Your task to perform on an android device: turn on priority inbox in the gmail app Image 0: 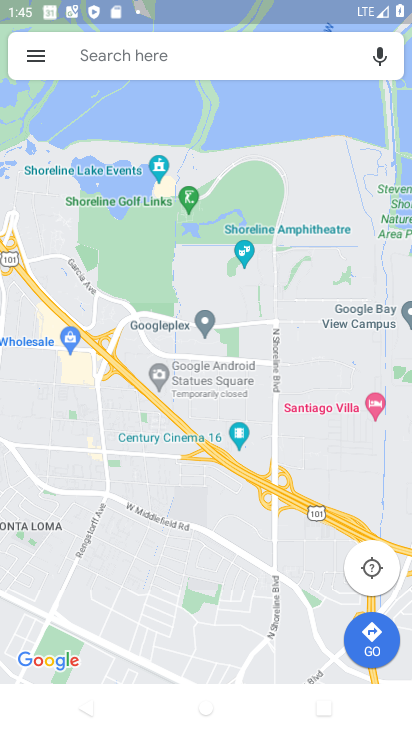
Step 0: press home button
Your task to perform on an android device: turn on priority inbox in the gmail app Image 1: 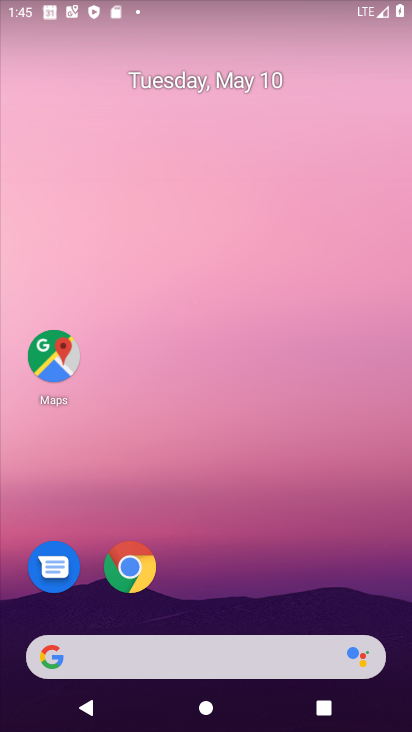
Step 1: drag from (374, 595) to (283, 112)
Your task to perform on an android device: turn on priority inbox in the gmail app Image 2: 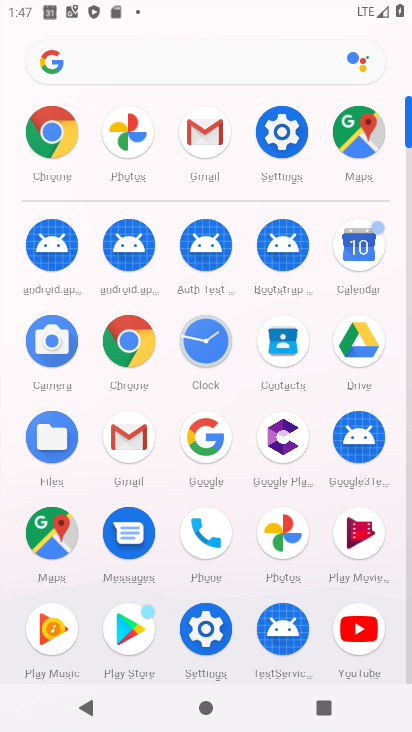
Step 2: click (216, 626)
Your task to perform on an android device: turn on priority inbox in the gmail app Image 3: 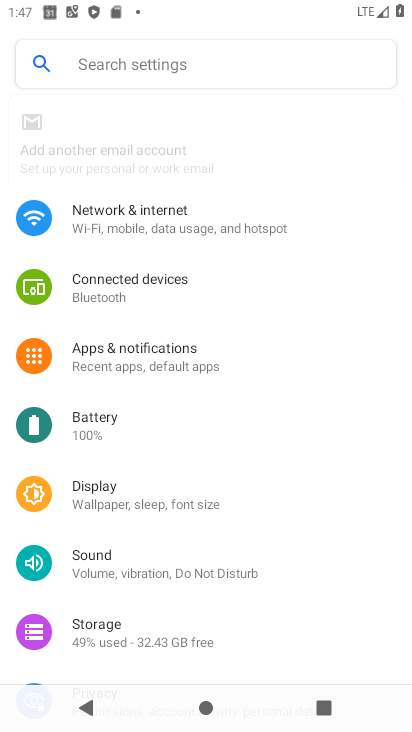
Step 3: press home button
Your task to perform on an android device: turn on priority inbox in the gmail app Image 4: 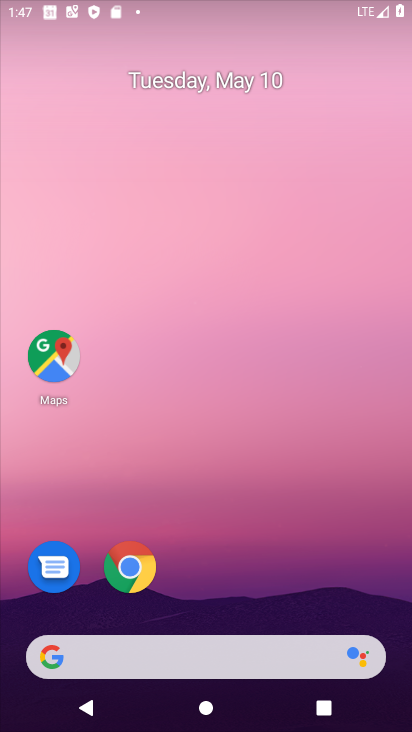
Step 4: drag from (273, 593) to (284, 29)
Your task to perform on an android device: turn on priority inbox in the gmail app Image 5: 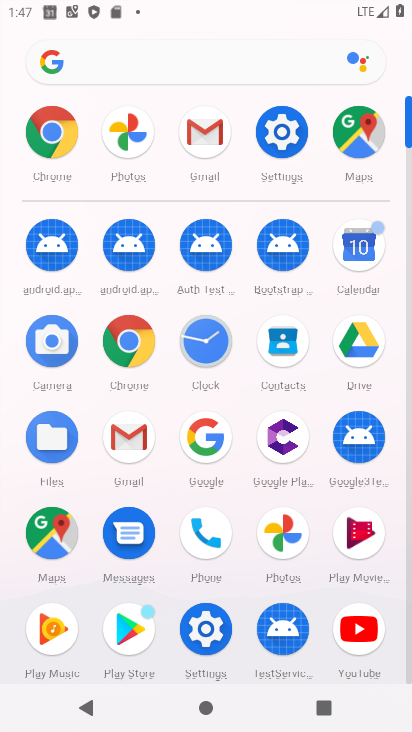
Step 5: click (137, 436)
Your task to perform on an android device: turn on priority inbox in the gmail app Image 6: 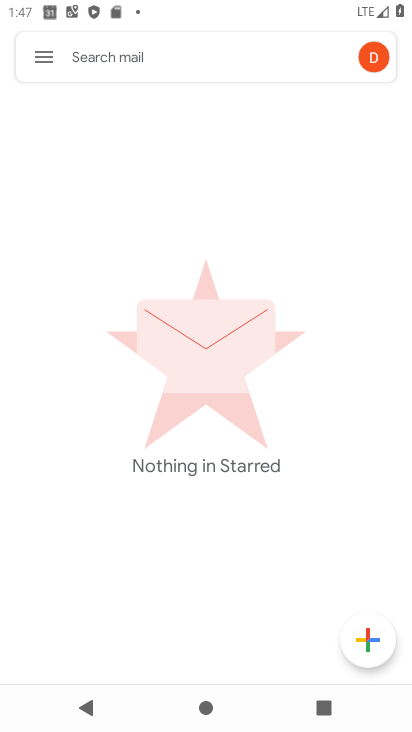
Step 6: click (43, 51)
Your task to perform on an android device: turn on priority inbox in the gmail app Image 7: 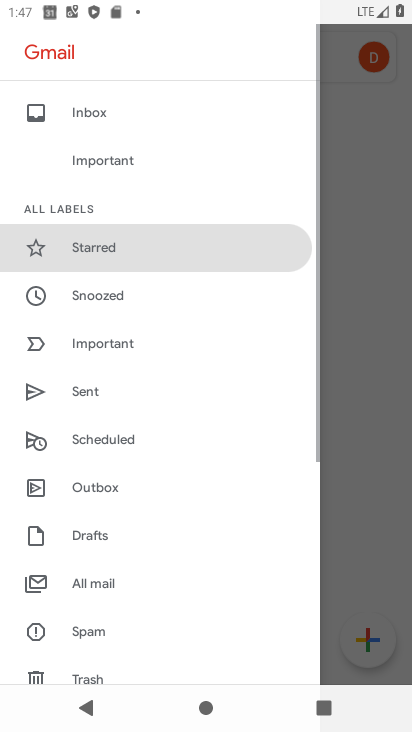
Step 7: drag from (115, 628) to (143, 95)
Your task to perform on an android device: turn on priority inbox in the gmail app Image 8: 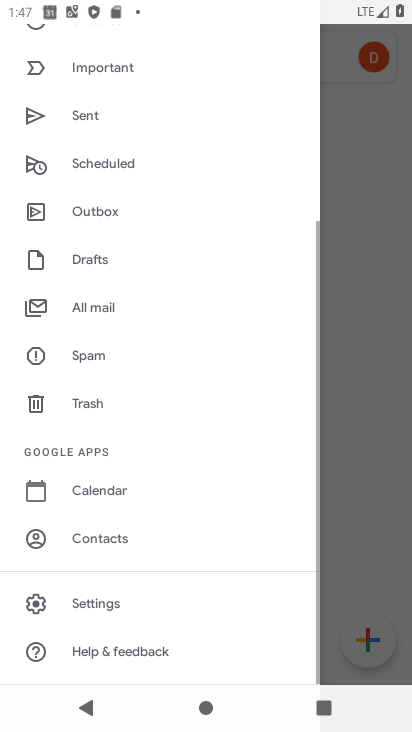
Step 8: click (120, 602)
Your task to perform on an android device: turn on priority inbox in the gmail app Image 9: 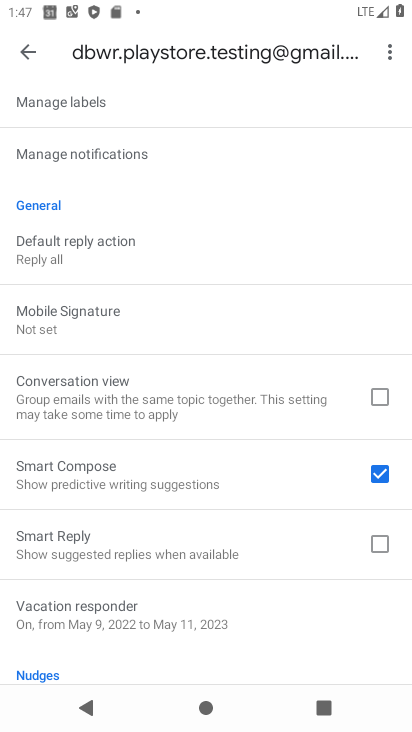
Step 9: drag from (131, 161) to (158, 623)
Your task to perform on an android device: turn on priority inbox in the gmail app Image 10: 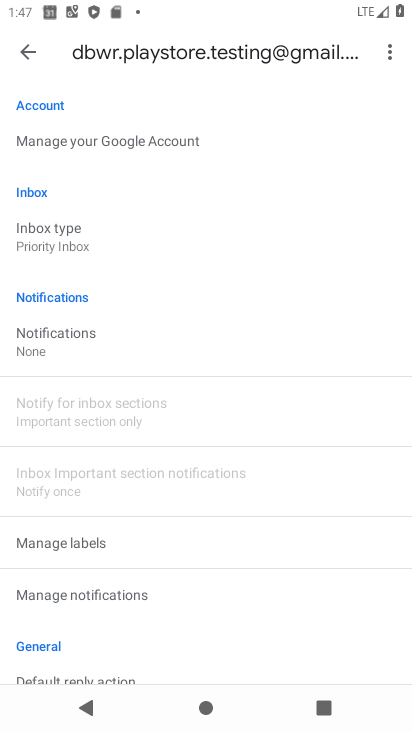
Step 10: click (105, 234)
Your task to perform on an android device: turn on priority inbox in the gmail app Image 11: 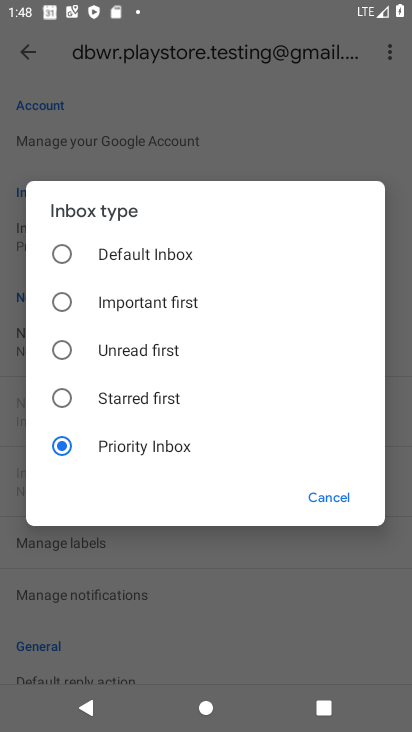
Step 11: task complete